Your task to perform on an android device: Open Youtube and go to the subscriptions tab Image 0: 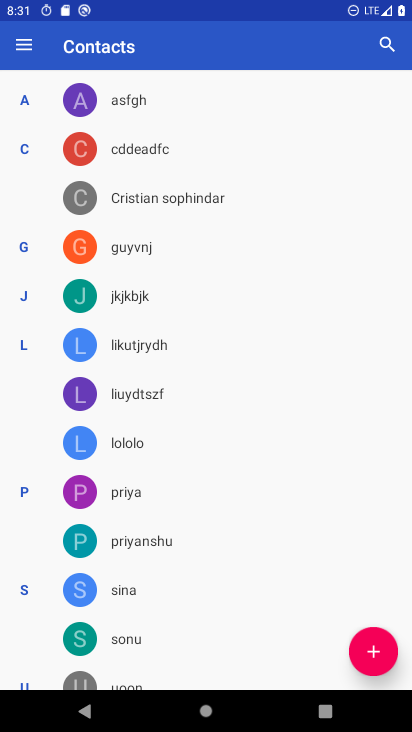
Step 0: press home button
Your task to perform on an android device: Open Youtube and go to the subscriptions tab Image 1: 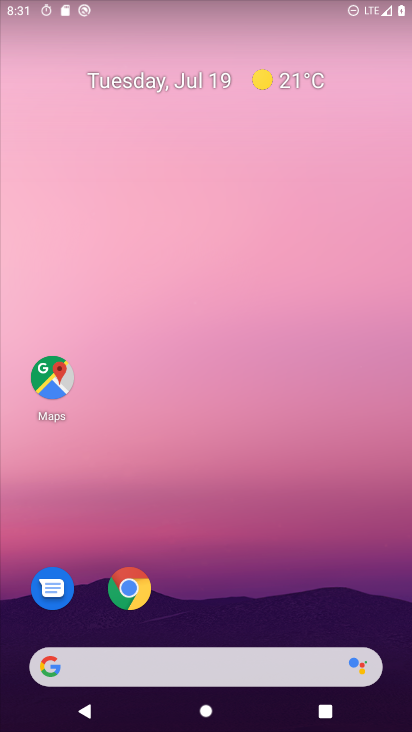
Step 1: drag from (273, 565) to (249, 195)
Your task to perform on an android device: Open Youtube and go to the subscriptions tab Image 2: 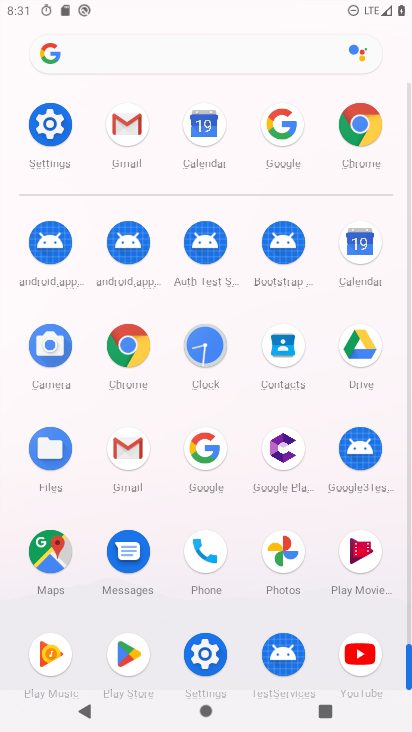
Step 2: click (355, 651)
Your task to perform on an android device: Open Youtube and go to the subscriptions tab Image 3: 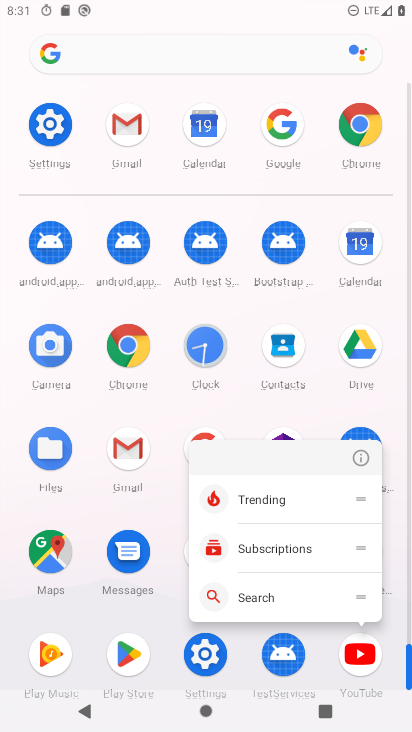
Step 3: click (355, 660)
Your task to perform on an android device: Open Youtube and go to the subscriptions tab Image 4: 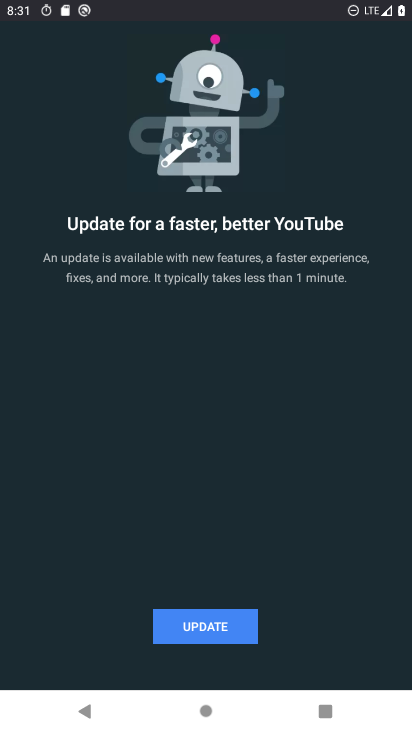
Step 4: click (143, 639)
Your task to perform on an android device: Open Youtube and go to the subscriptions tab Image 5: 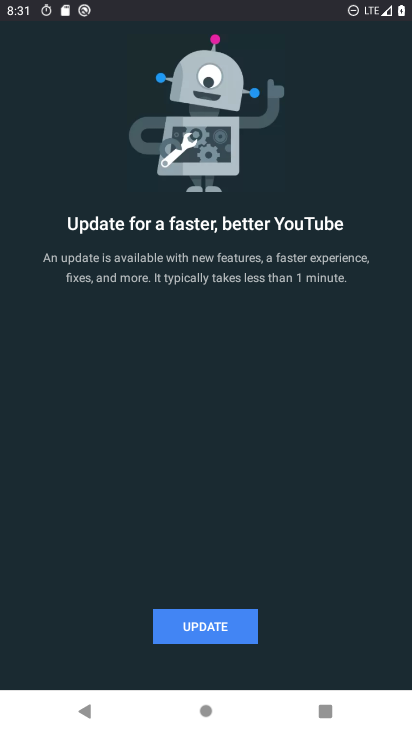
Step 5: click (226, 622)
Your task to perform on an android device: Open Youtube and go to the subscriptions tab Image 6: 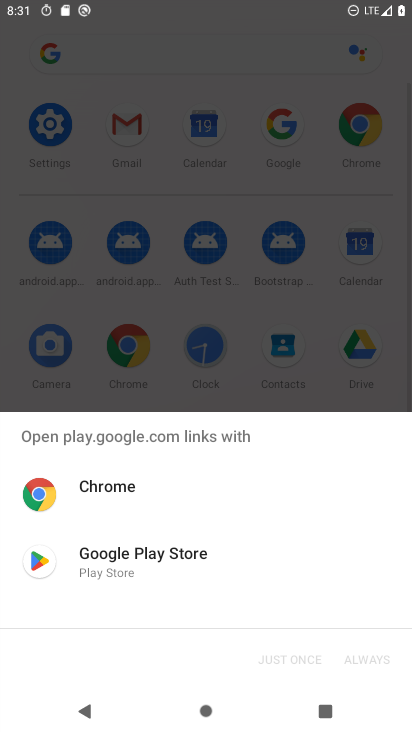
Step 6: click (183, 548)
Your task to perform on an android device: Open Youtube and go to the subscriptions tab Image 7: 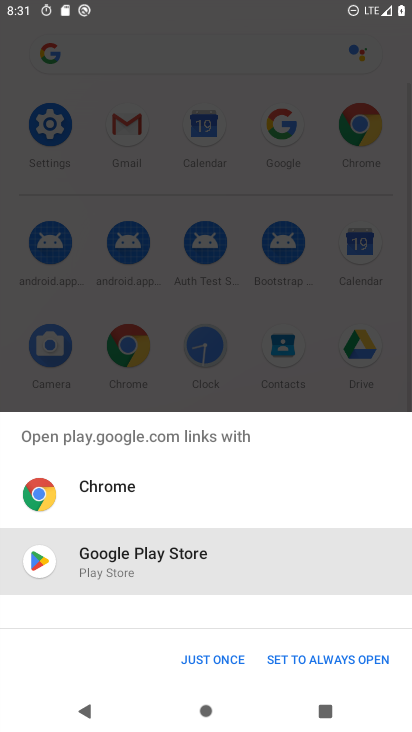
Step 7: click (224, 656)
Your task to perform on an android device: Open Youtube and go to the subscriptions tab Image 8: 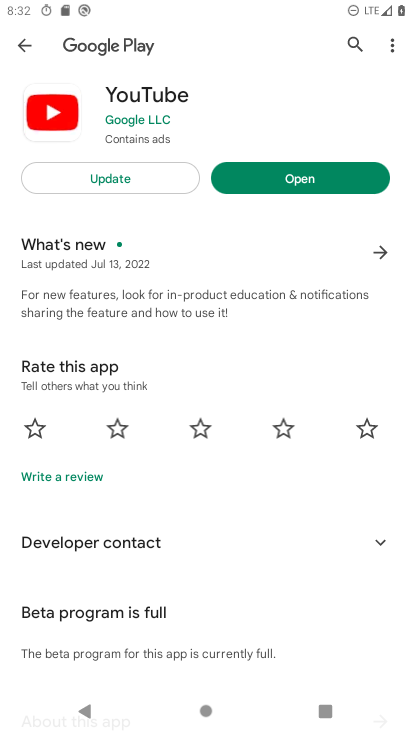
Step 8: click (126, 183)
Your task to perform on an android device: Open Youtube and go to the subscriptions tab Image 9: 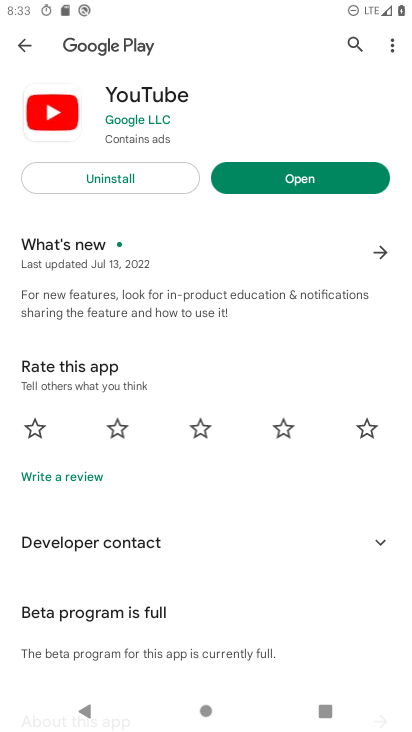
Step 9: click (334, 185)
Your task to perform on an android device: Open Youtube and go to the subscriptions tab Image 10: 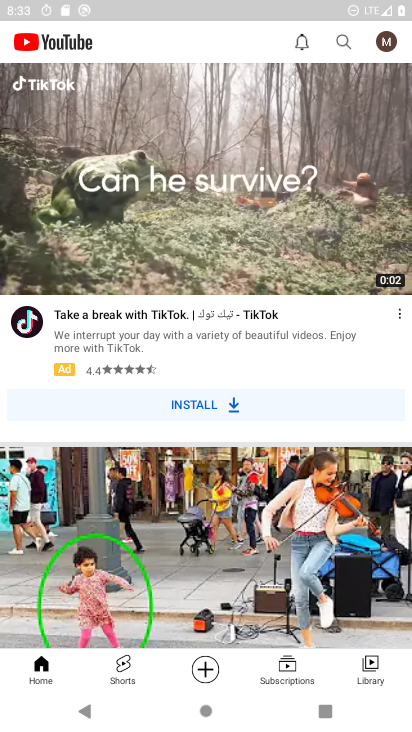
Step 10: click (295, 675)
Your task to perform on an android device: Open Youtube and go to the subscriptions tab Image 11: 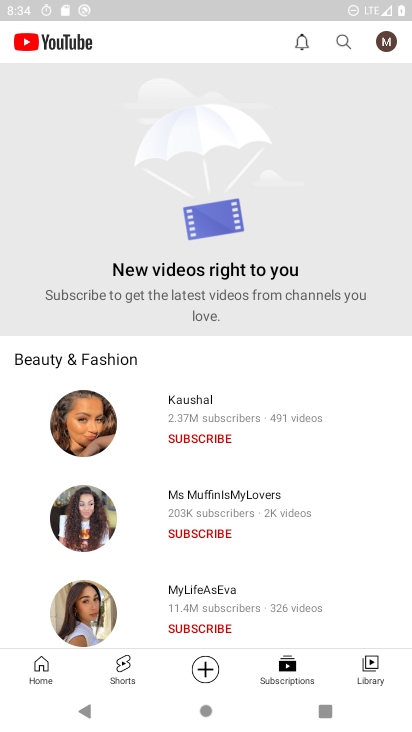
Step 11: task complete